Your task to perform on an android device: turn pop-ups on in chrome Image 0: 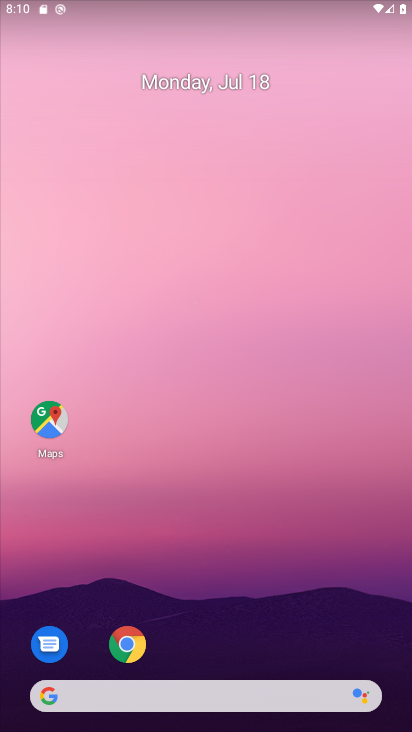
Step 0: click (138, 649)
Your task to perform on an android device: turn pop-ups on in chrome Image 1: 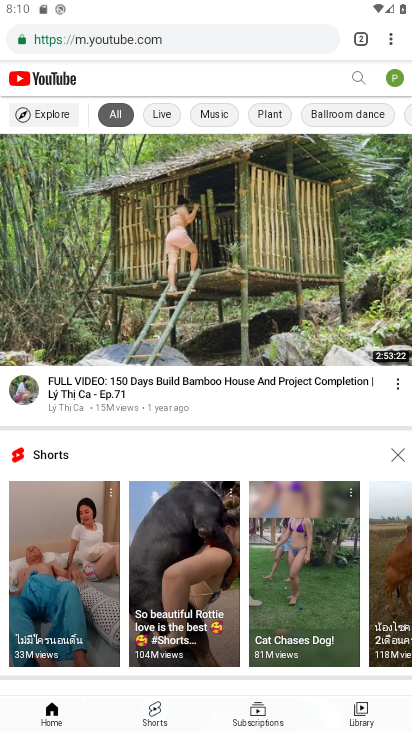
Step 1: click (390, 53)
Your task to perform on an android device: turn pop-ups on in chrome Image 2: 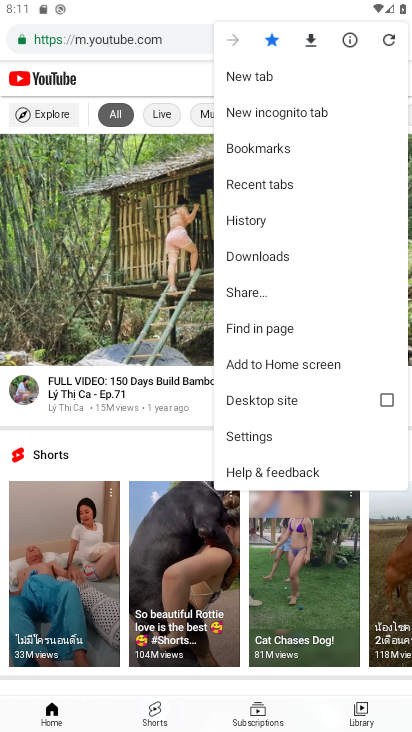
Step 2: click (268, 432)
Your task to perform on an android device: turn pop-ups on in chrome Image 3: 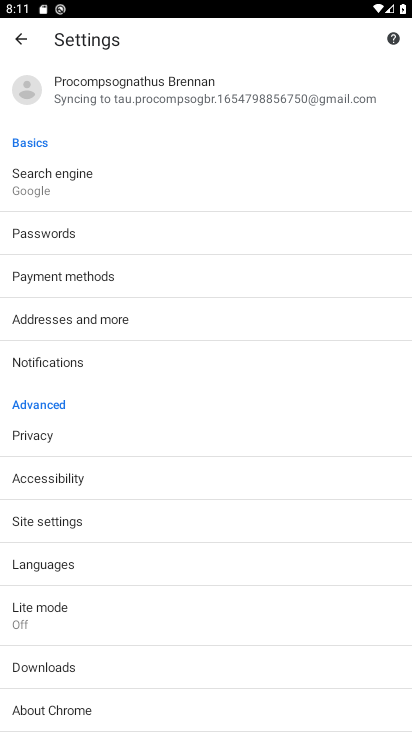
Step 3: click (88, 525)
Your task to perform on an android device: turn pop-ups on in chrome Image 4: 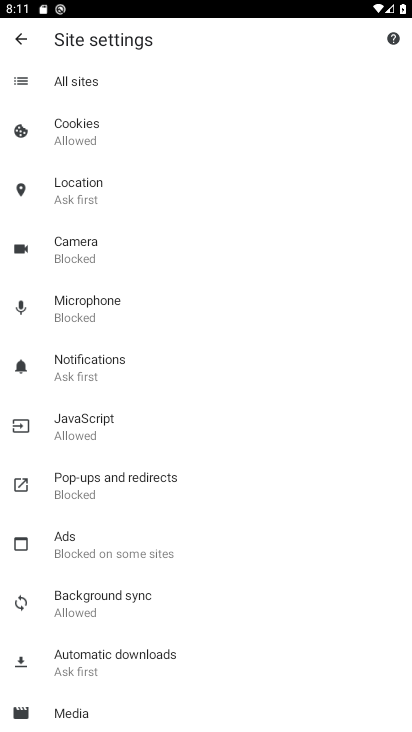
Step 4: click (102, 509)
Your task to perform on an android device: turn pop-ups on in chrome Image 5: 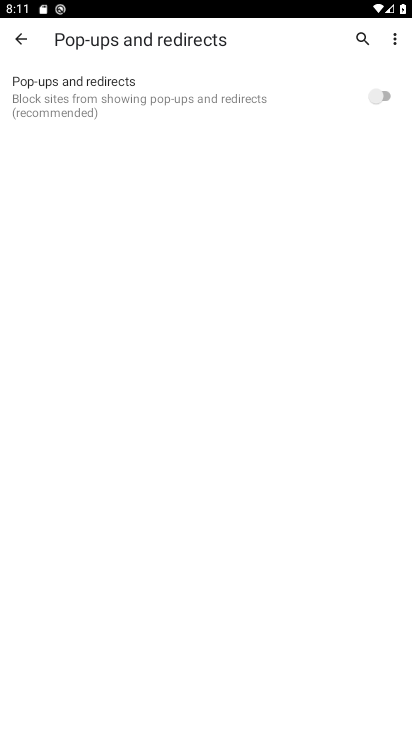
Step 5: click (397, 102)
Your task to perform on an android device: turn pop-ups on in chrome Image 6: 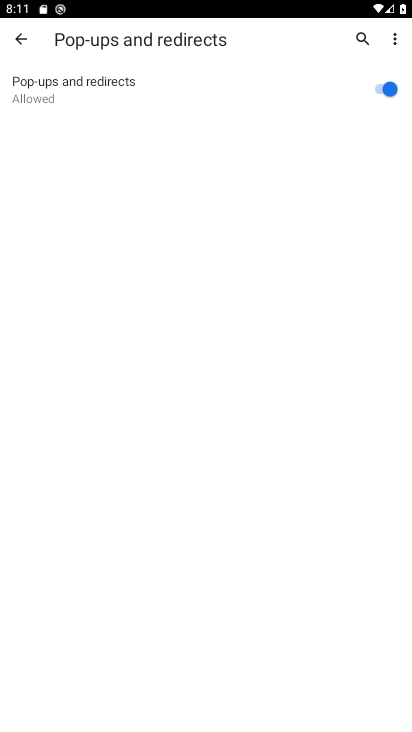
Step 6: task complete